Your task to perform on an android device: Open Wikipedia Image 0: 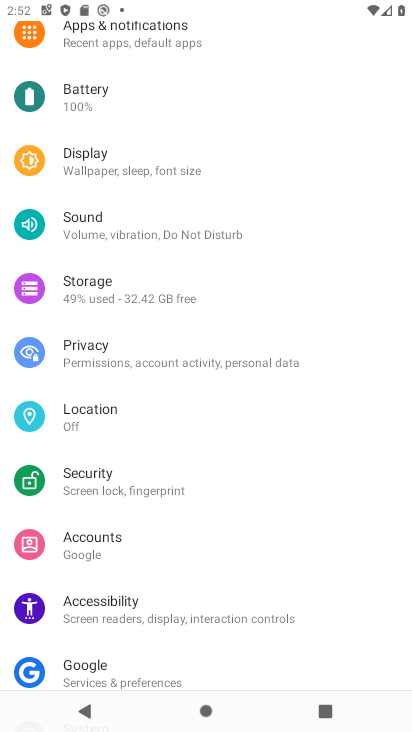
Step 0: press home button
Your task to perform on an android device: Open Wikipedia Image 1: 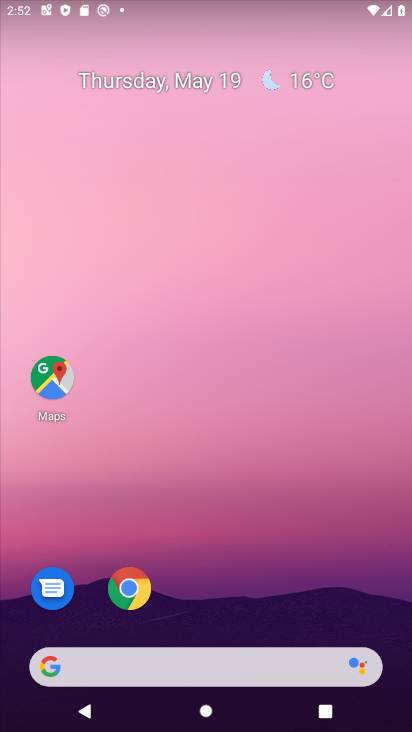
Step 1: click (131, 589)
Your task to perform on an android device: Open Wikipedia Image 2: 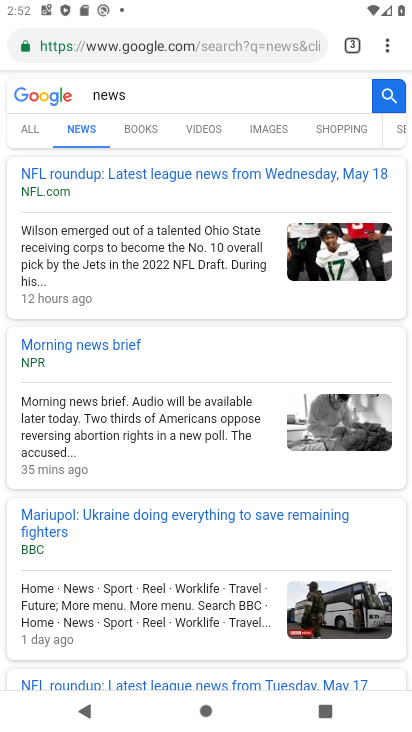
Step 2: click (226, 47)
Your task to perform on an android device: Open Wikipedia Image 3: 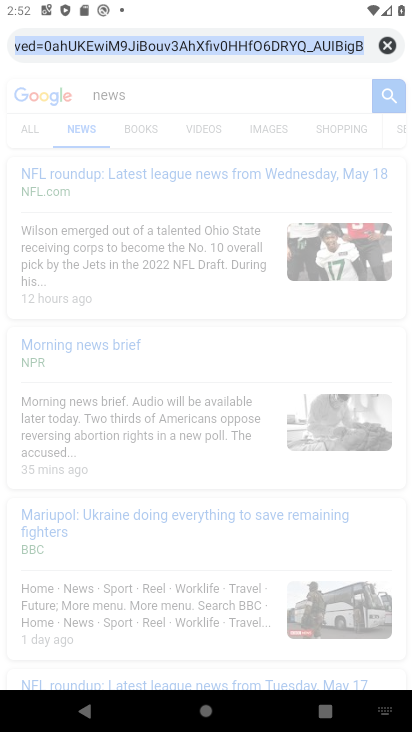
Step 3: type "wikipedia"
Your task to perform on an android device: Open Wikipedia Image 4: 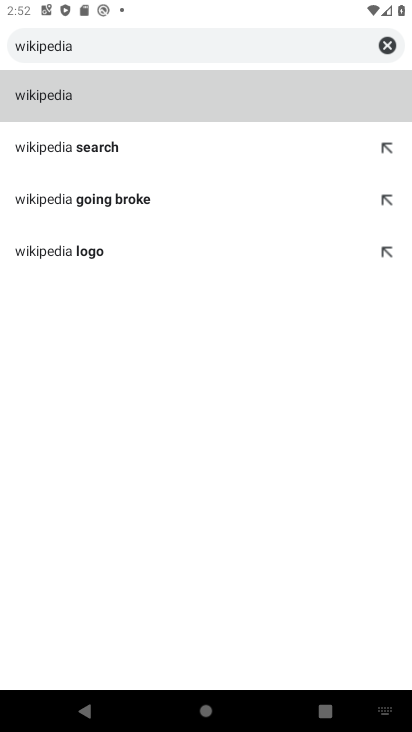
Step 4: click (68, 96)
Your task to perform on an android device: Open Wikipedia Image 5: 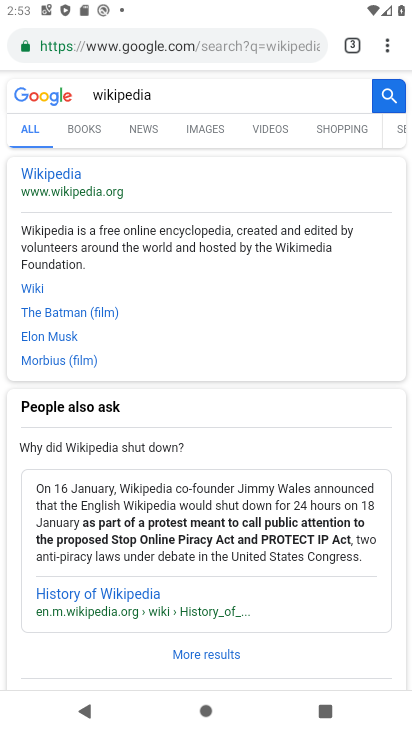
Step 5: click (61, 169)
Your task to perform on an android device: Open Wikipedia Image 6: 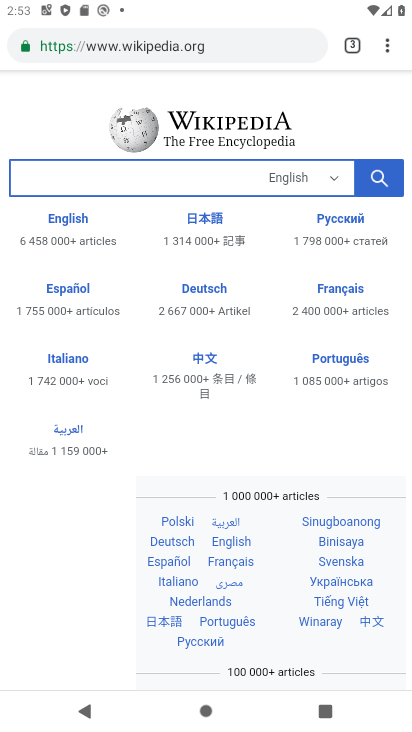
Step 6: task complete